Your task to perform on an android device: set an alarm Image 0: 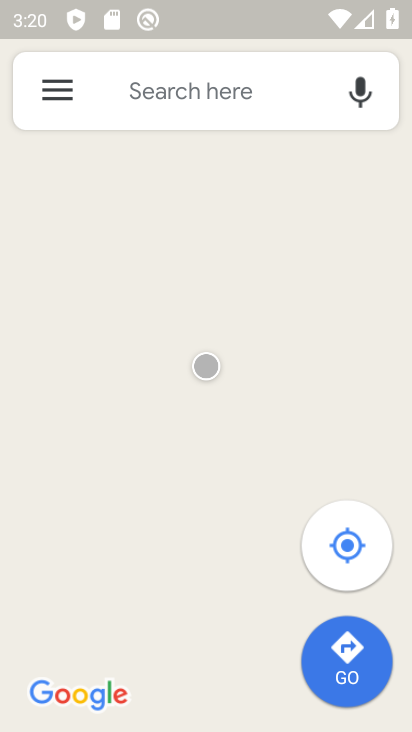
Step 0: press back button
Your task to perform on an android device: set an alarm Image 1: 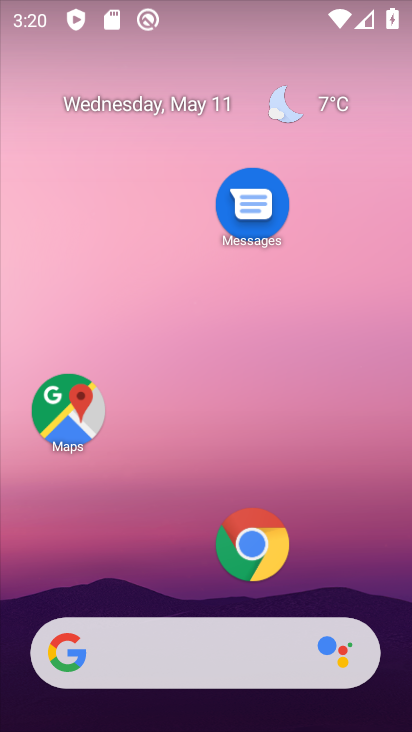
Step 1: drag from (124, 607) to (262, 79)
Your task to perform on an android device: set an alarm Image 2: 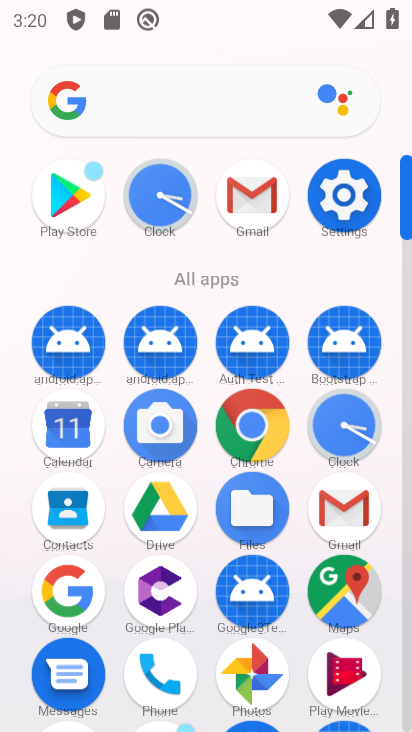
Step 2: click (348, 429)
Your task to perform on an android device: set an alarm Image 3: 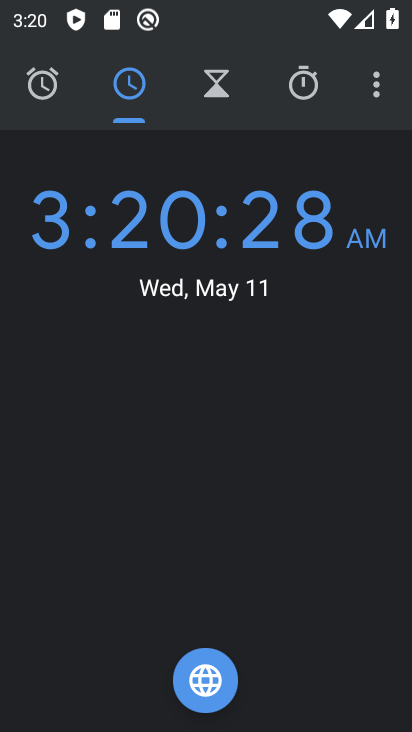
Step 3: click (33, 79)
Your task to perform on an android device: set an alarm Image 4: 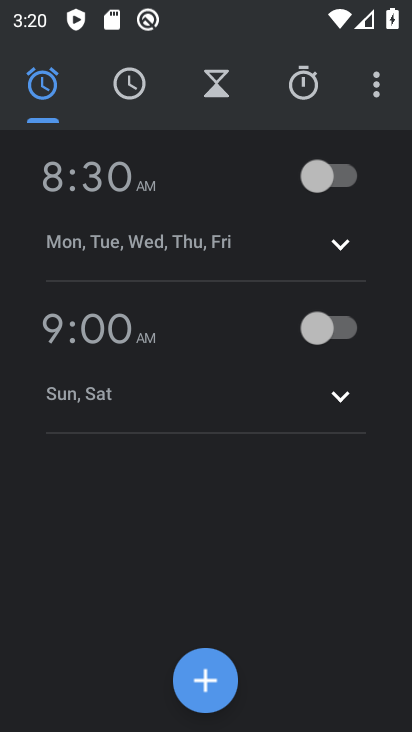
Step 4: click (333, 177)
Your task to perform on an android device: set an alarm Image 5: 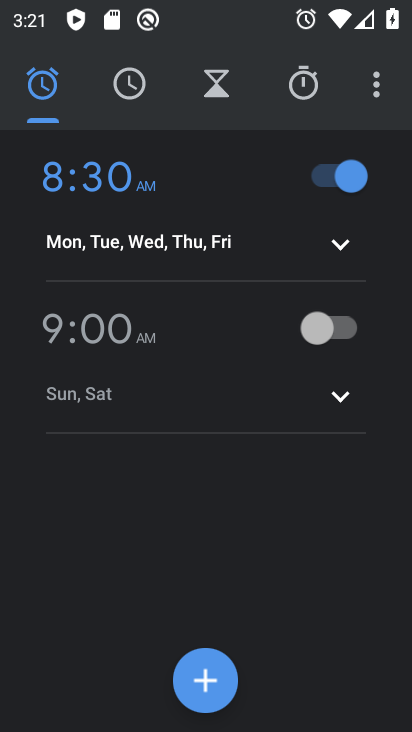
Step 5: task complete